Your task to perform on an android device: open chrome and create a bookmark for the current page Image 0: 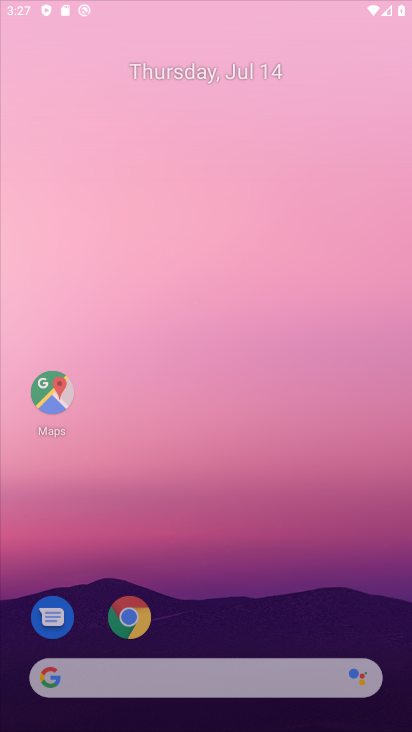
Step 0: click (166, 92)
Your task to perform on an android device: open chrome and create a bookmark for the current page Image 1: 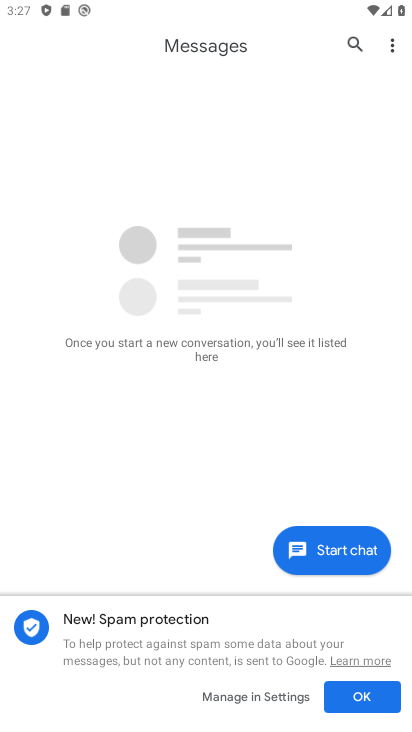
Step 1: press home button
Your task to perform on an android device: open chrome and create a bookmark for the current page Image 2: 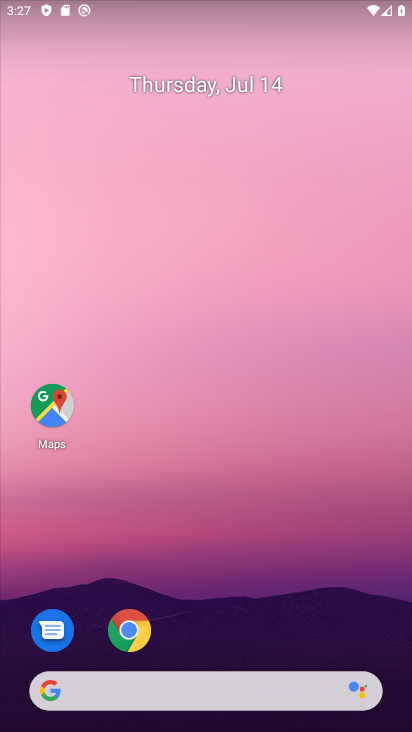
Step 2: drag from (234, 257) to (235, 165)
Your task to perform on an android device: open chrome and create a bookmark for the current page Image 3: 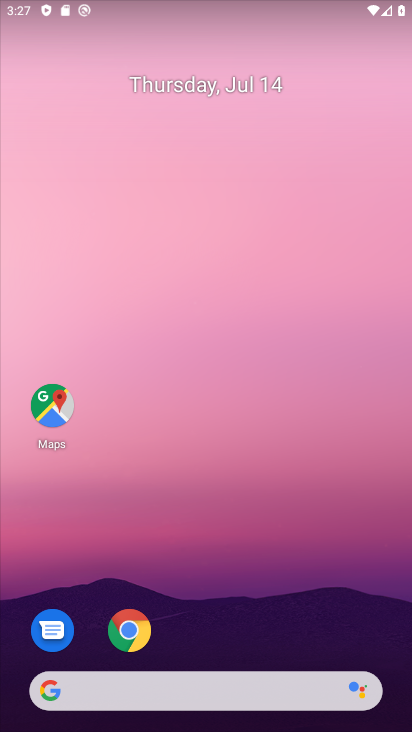
Step 3: click (133, 630)
Your task to perform on an android device: open chrome and create a bookmark for the current page Image 4: 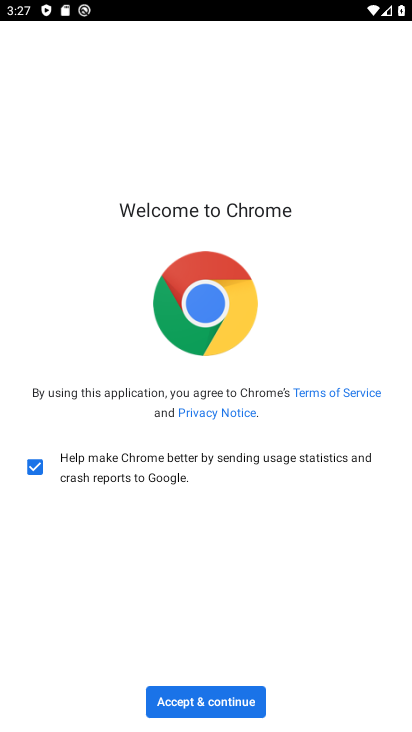
Step 4: click (197, 701)
Your task to perform on an android device: open chrome and create a bookmark for the current page Image 5: 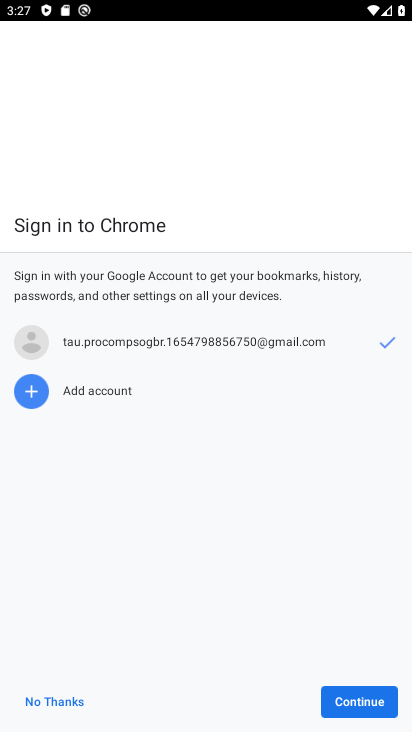
Step 5: click (342, 702)
Your task to perform on an android device: open chrome and create a bookmark for the current page Image 6: 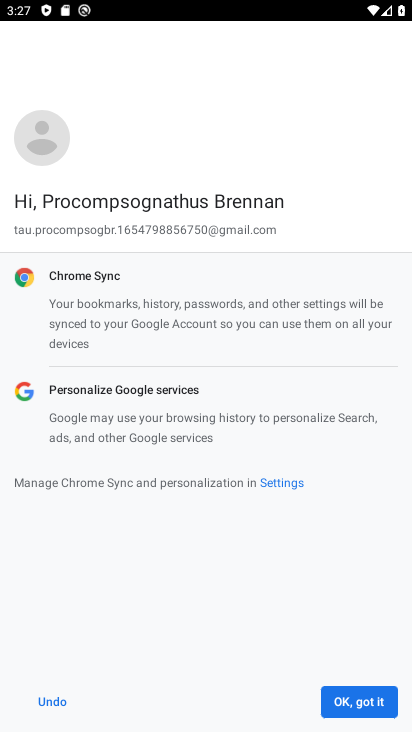
Step 6: click (342, 702)
Your task to perform on an android device: open chrome and create a bookmark for the current page Image 7: 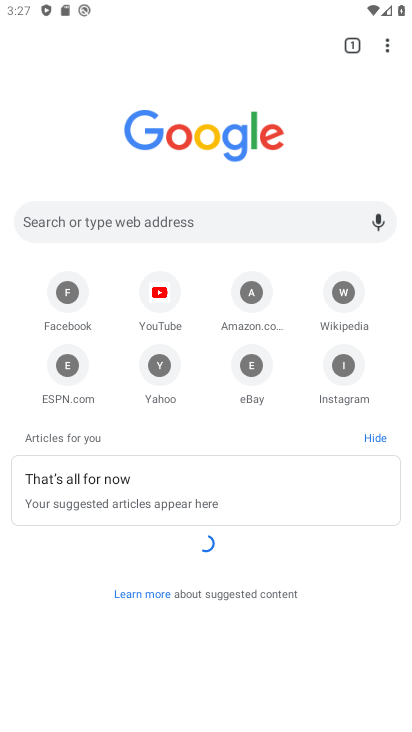
Step 7: click (386, 46)
Your task to perform on an android device: open chrome and create a bookmark for the current page Image 8: 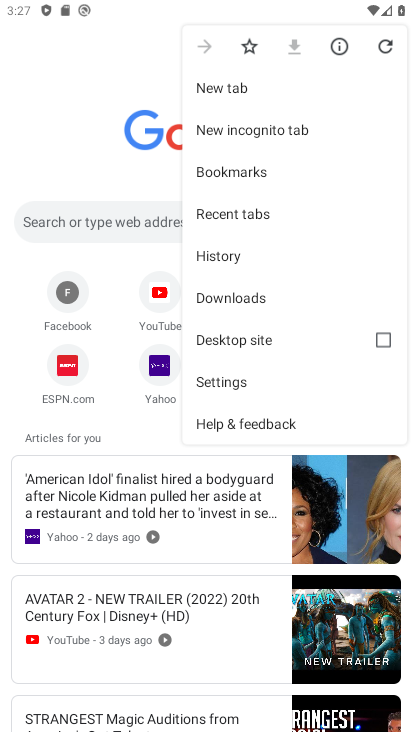
Step 8: click (249, 43)
Your task to perform on an android device: open chrome and create a bookmark for the current page Image 9: 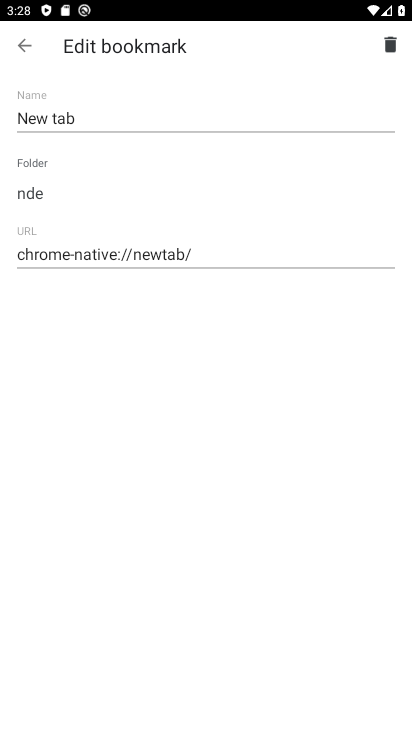
Step 9: click (206, 418)
Your task to perform on an android device: open chrome and create a bookmark for the current page Image 10: 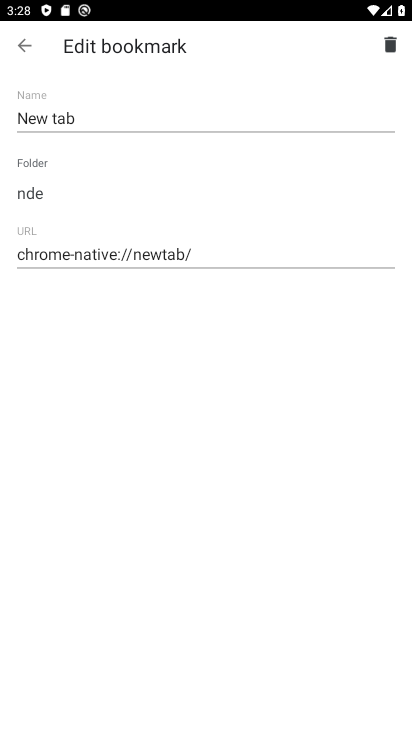
Step 10: click (35, 39)
Your task to perform on an android device: open chrome and create a bookmark for the current page Image 11: 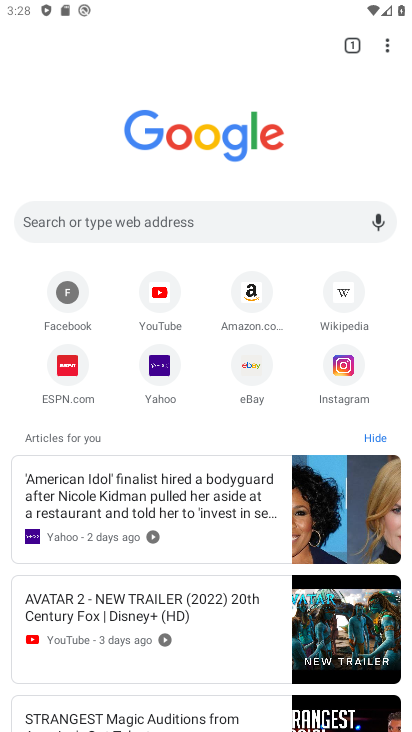
Step 11: task complete